Your task to perform on an android device: Open the calendar app, open the side menu, and click the "Day" option Image 0: 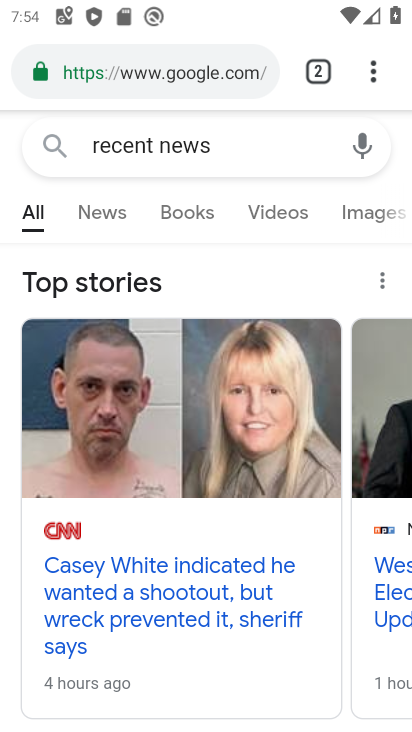
Step 0: press home button
Your task to perform on an android device: Open the calendar app, open the side menu, and click the "Day" option Image 1: 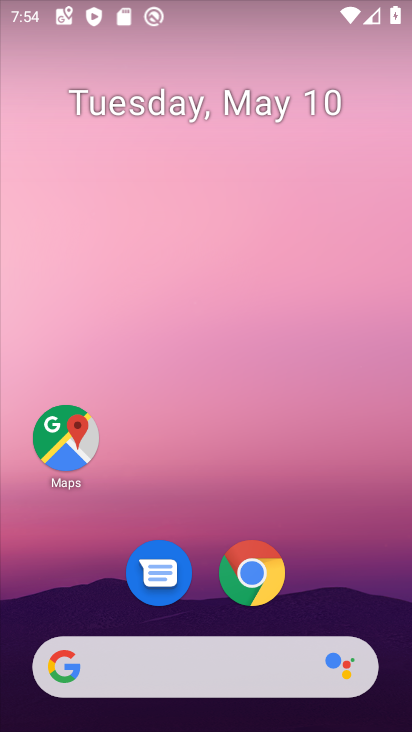
Step 1: drag from (378, 598) to (366, 272)
Your task to perform on an android device: Open the calendar app, open the side menu, and click the "Day" option Image 2: 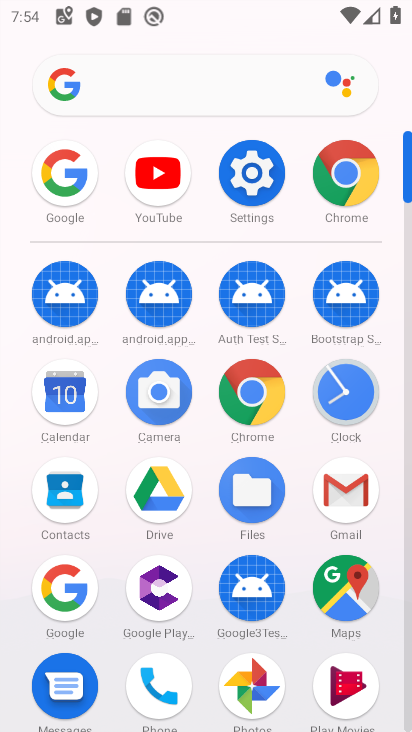
Step 2: click (68, 418)
Your task to perform on an android device: Open the calendar app, open the side menu, and click the "Day" option Image 3: 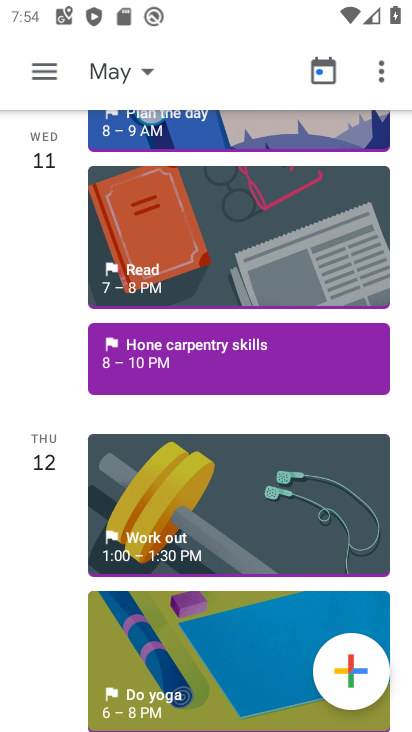
Step 3: click (38, 79)
Your task to perform on an android device: Open the calendar app, open the side menu, and click the "Day" option Image 4: 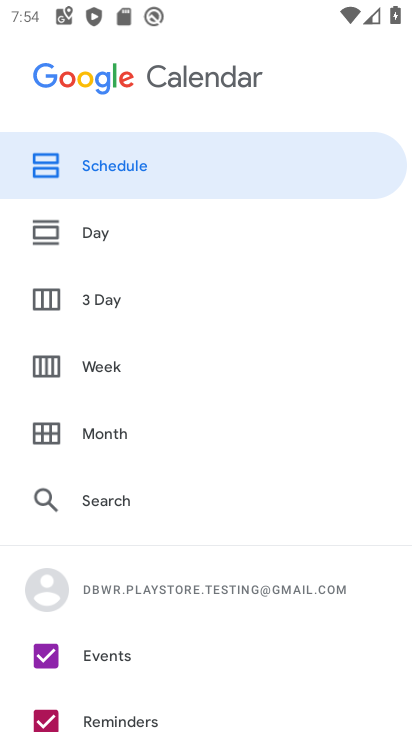
Step 4: click (77, 258)
Your task to perform on an android device: Open the calendar app, open the side menu, and click the "Day" option Image 5: 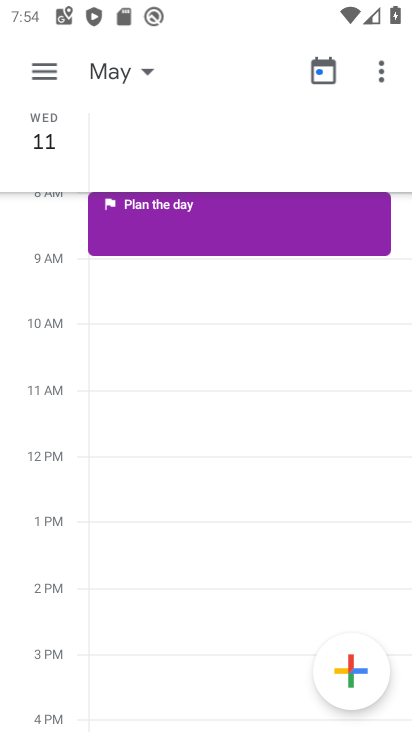
Step 5: task complete